Your task to perform on an android device: What's the top post on reddit right now? Image 0: 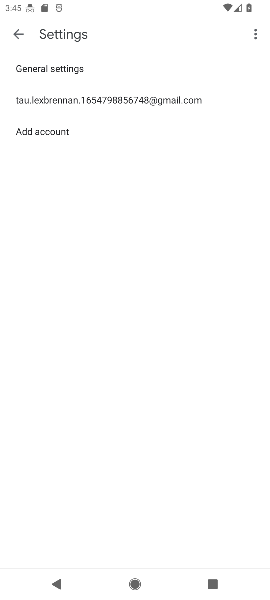
Step 0: press home button
Your task to perform on an android device: What's the top post on reddit right now? Image 1: 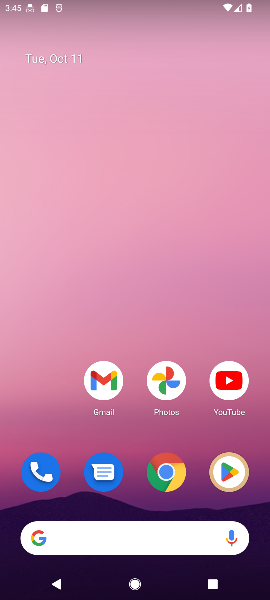
Step 1: click (161, 472)
Your task to perform on an android device: What's the top post on reddit right now? Image 2: 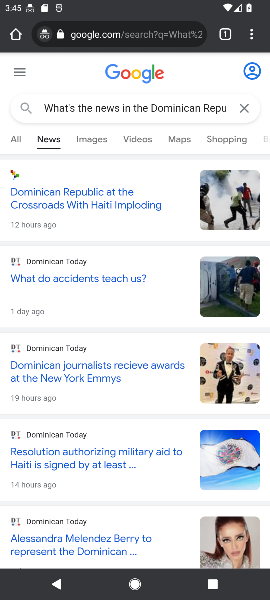
Step 2: click (74, 30)
Your task to perform on an android device: What's the top post on reddit right now? Image 3: 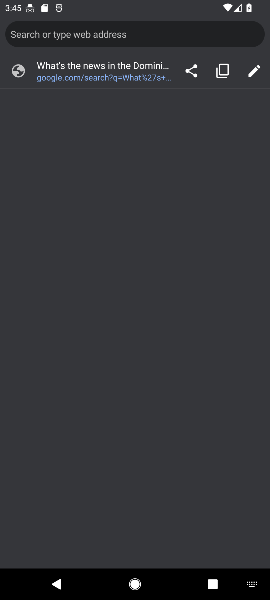
Step 3: type "What's the top post on reddit right now?"
Your task to perform on an android device: What's the top post on reddit right now? Image 4: 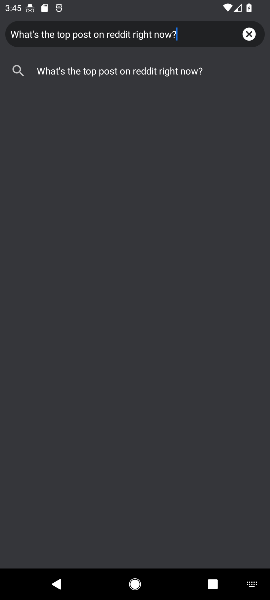
Step 4: click (111, 71)
Your task to perform on an android device: What's the top post on reddit right now? Image 5: 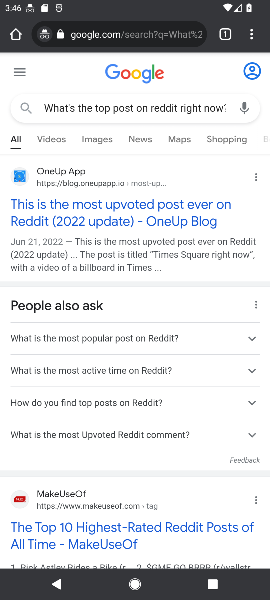
Step 5: click (69, 224)
Your task to perform on an android device: What's the top post on reddit right now? Image 6: 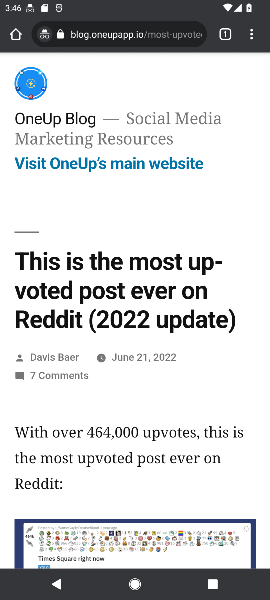
Step 6: task complete